Your task to perform on an android device: turn on wifi Image 0: 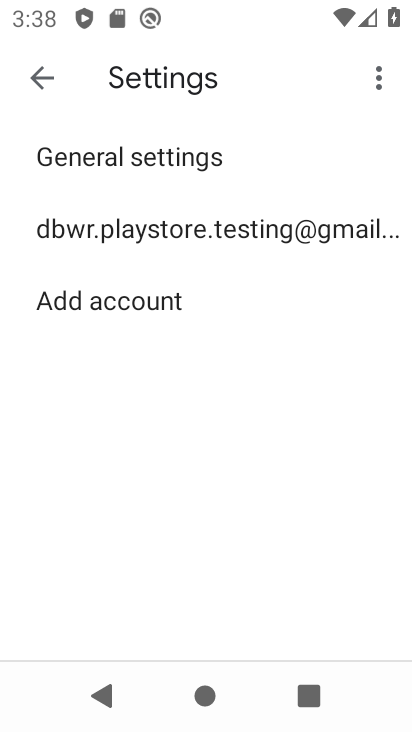
Step 0: press home button
Your task to perform on an android device: turn on wifi Image 1: 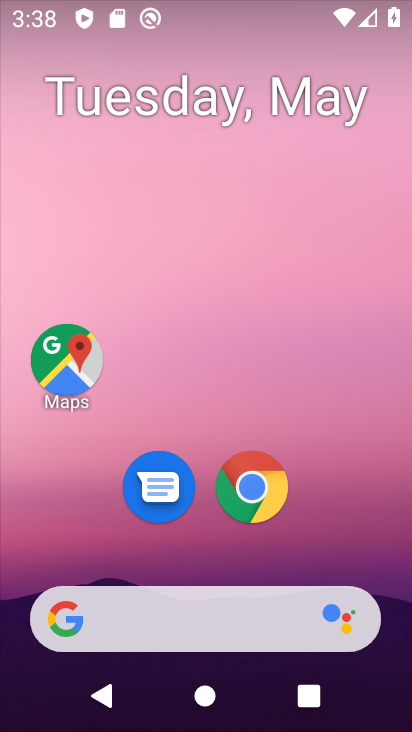
Step 1: drag from (227, 548) to (299, 6)
Your task to perform on an android device: turn on wifi Image 2: 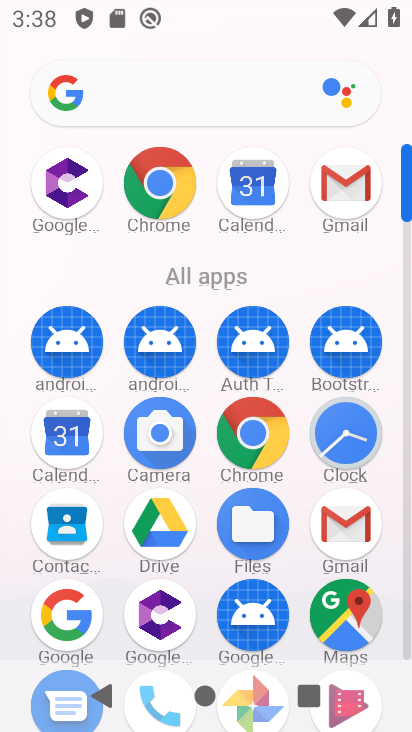
Step 2: drag from (217, 586) to (276, 313)
Your task to perform on an android device: turn on wifi Image 3: 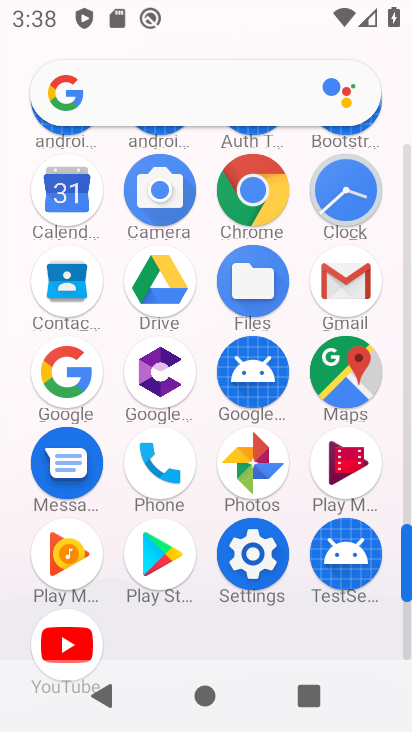
Step 3: click (260, 568)
Your task to perform on an android device: turn on wifi Image 4: 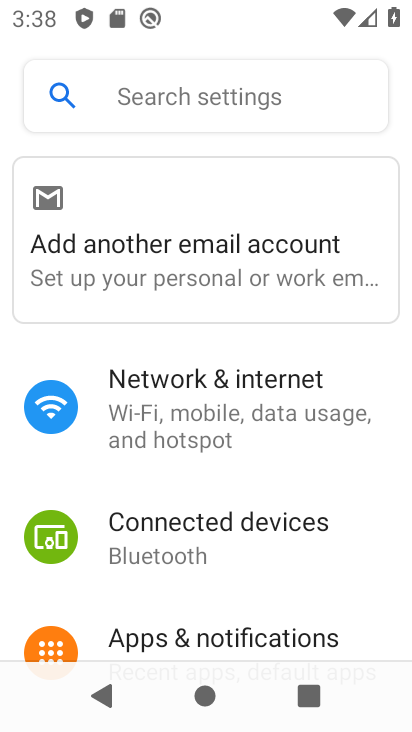
Step 4: click (217, 435)
Your task to perform on an android device: turn on wifi Image 5: 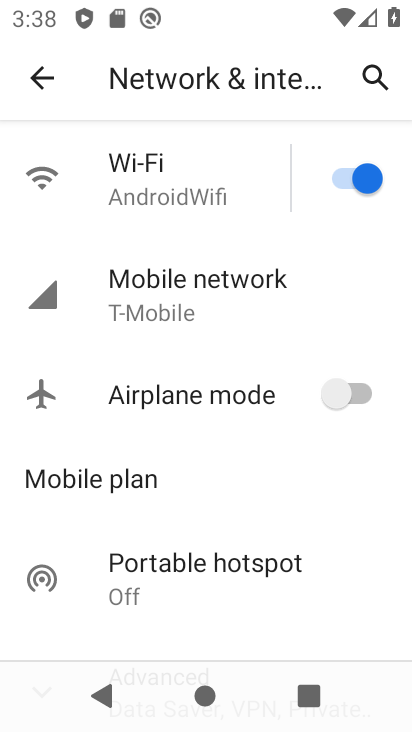
Step 5: task complete